Your task to perform on an android device: Toggle the flashlight Image 0: 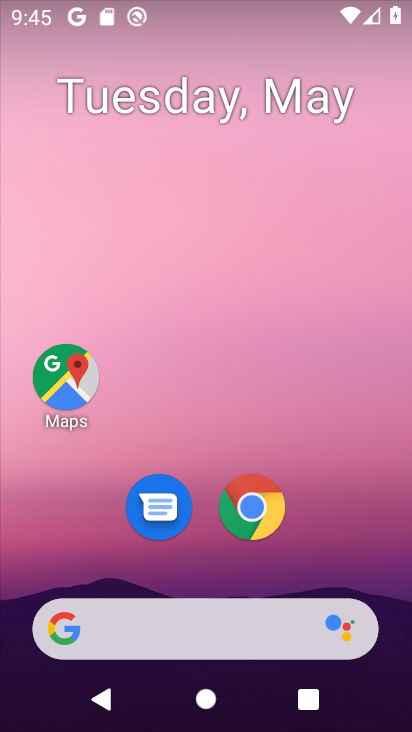
Step 0: drag from (310, 564) to (339, 67)
Your task to perform on an android device: Toggle the flashlight Image 1: 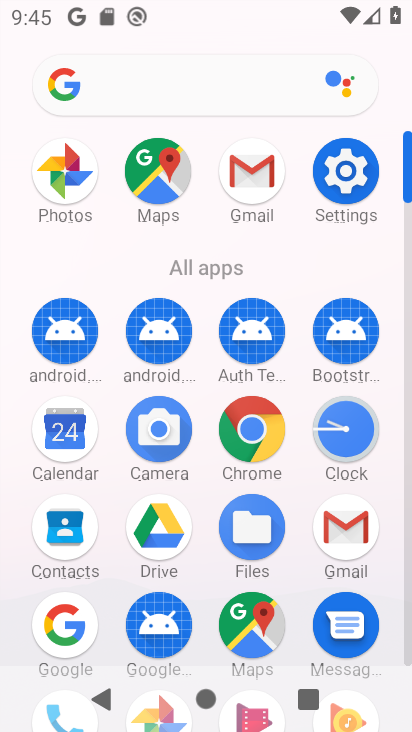
Step 1: click (344, 183)
Your task to perform on an android device: Toggle the flashlight Image 2: 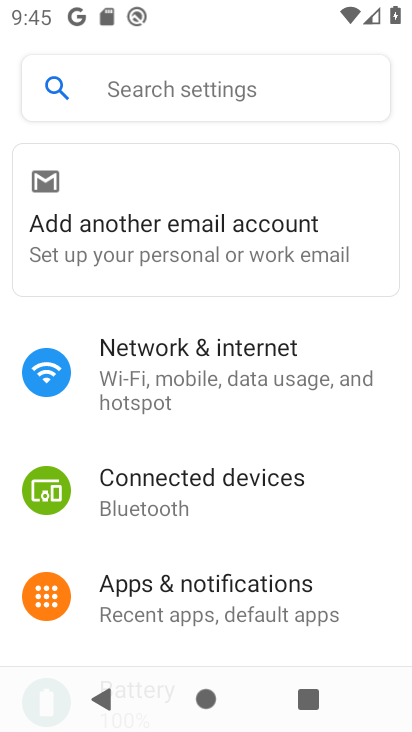
Step 2: click (227, 594)
Your task to perform on an android device: Toggle the flashlight Image 3: 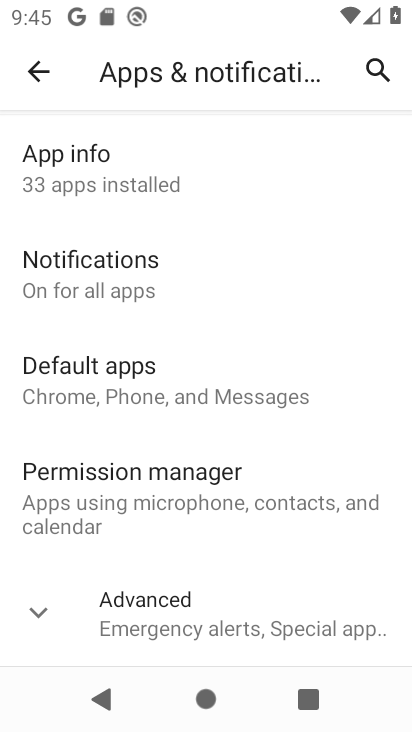
Step 3: click (241, 627)
Your task to perform on an android device: Toggle the flashlight Image 4: 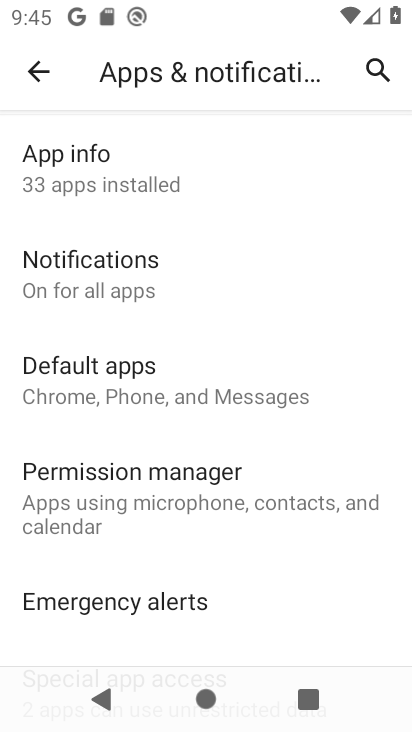
Step 4: task complete